Your task to perform on an android device: change the clock display to digital Image 0: 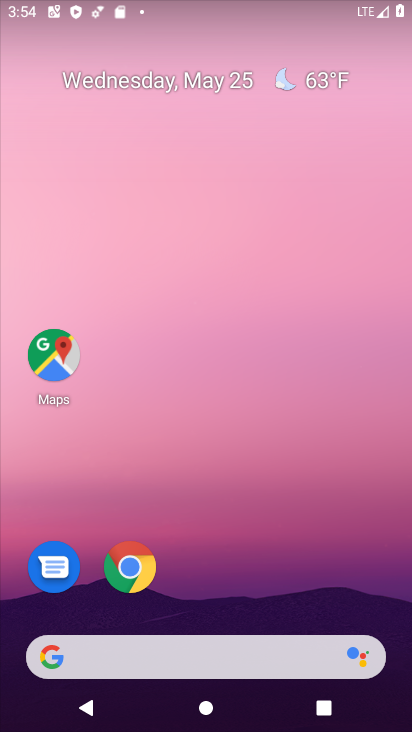
Step 0: drag from (316, 600) to (407, 28)
Your task to perform on an android device: change the clock display to digital Image 1: 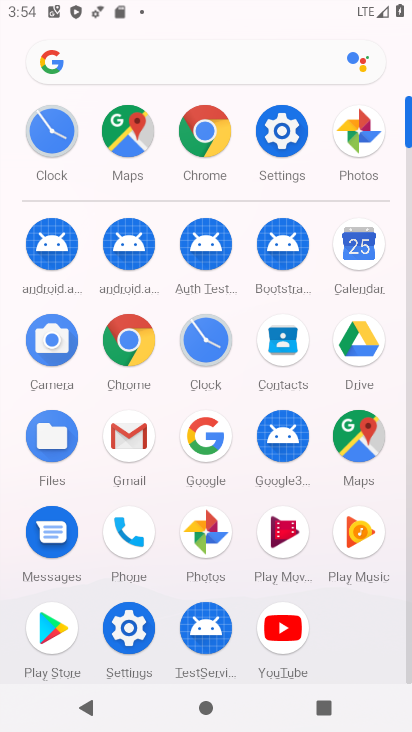
Step 1: click (187, 352)
Your task to perform on an android device: change the clock display to digital Image 2: 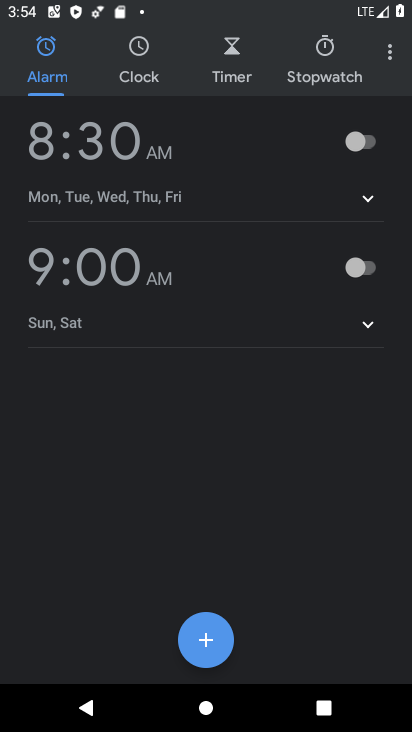
Step 2: click (389, 46)
Your task to perform on an android device: change the clock display to digital Image 3: 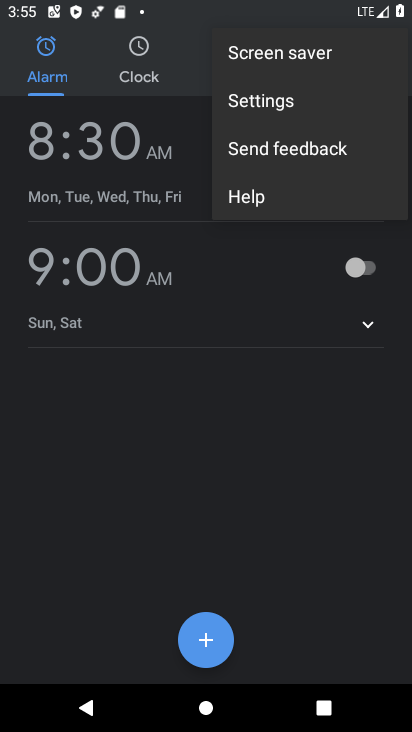
Step 3: click (296, 91)
Your task to perform on an android device: change the clock display to digital Image 4: 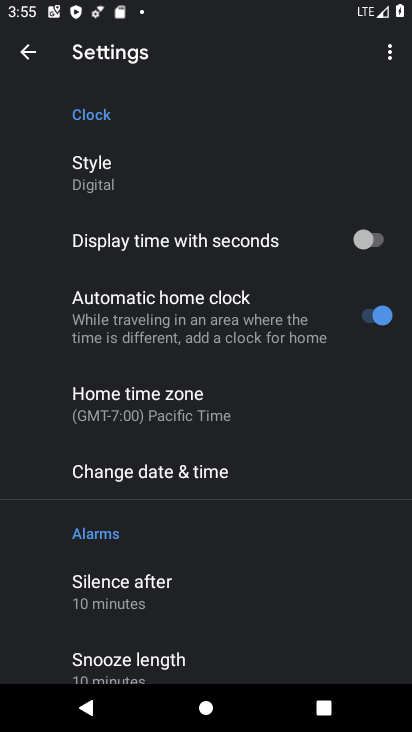
Step 4: task complete